Your task to perform on an android device: open chrome privacy settings Image 0: 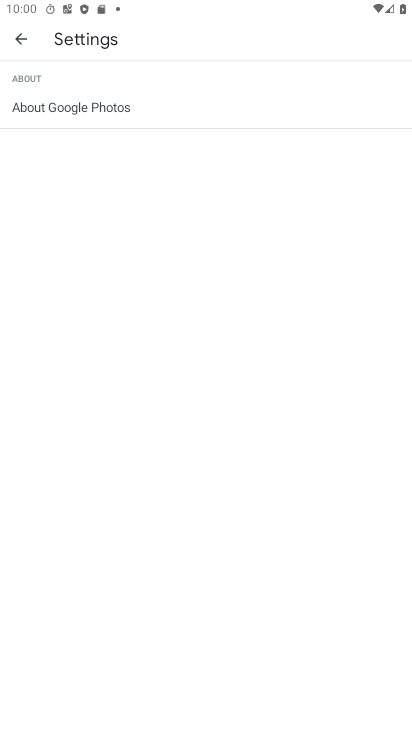
Step 0: drag from (250, 526) to (247, 373)
Your task to perform on an android device: open chrome privacy settings Image 1: 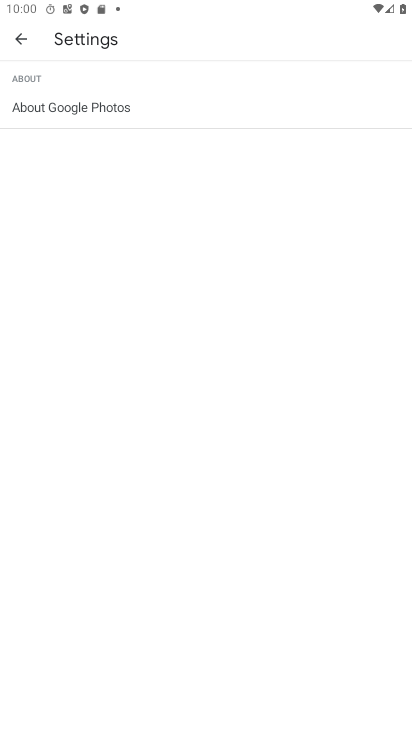
Step 1: click (22, 43)
Your task to perform on an android device: open chrome privacy settings Image 2: 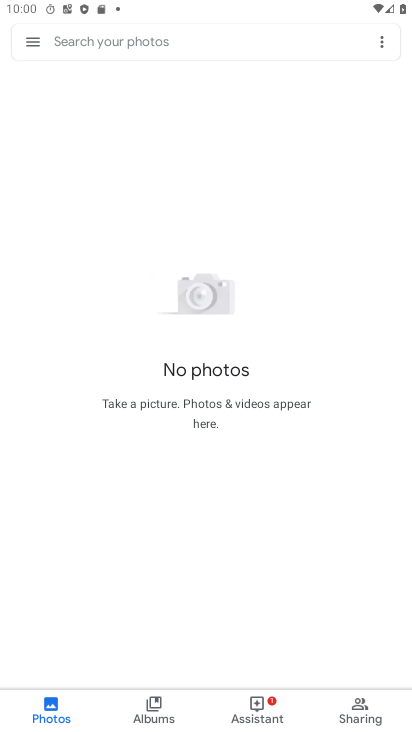
Step 2: click (14, 41)
Your task to perform on an android device: open chrome privacy settings Image 3: 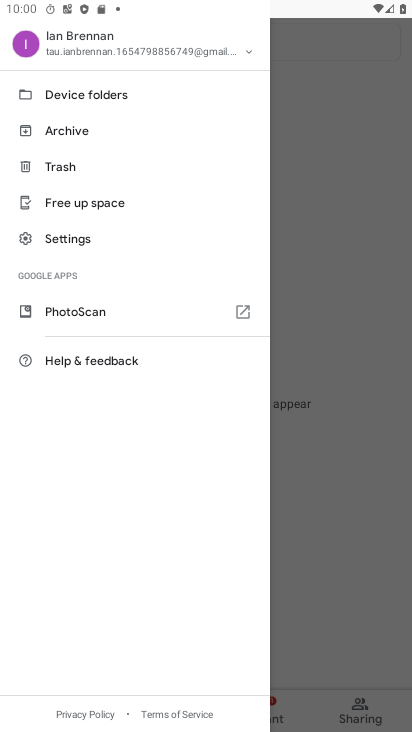
Step 3: click (369, 156)
Your task to perform on an android device: open chrome privacy settings Image 4: 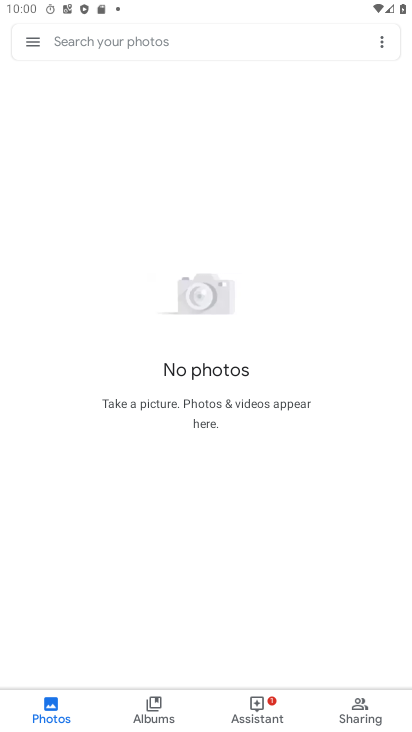
Step 4: press back button
Your task to perform on an android device: open chrome privacy settings Image 5: 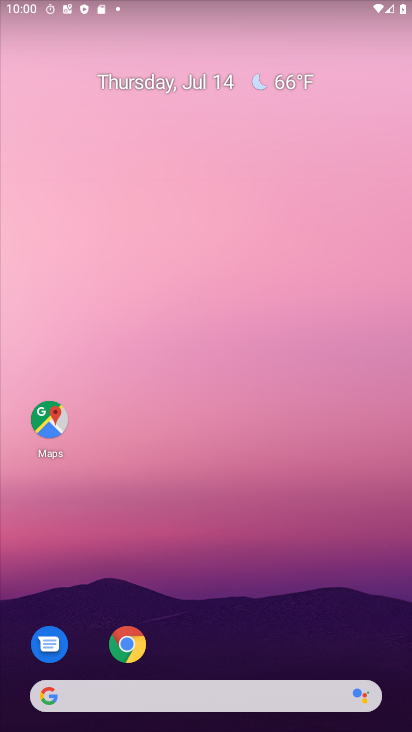
Step 5: drag from (243, 635) to (174, 98)
Your task to perform on an android device: open chrome privacy settings Image 6: 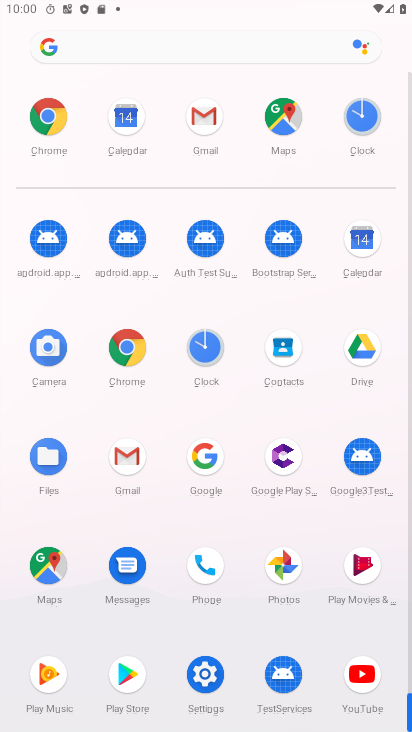
Step 6: click (46, 107)
Your task to perform on an android device: open chrome privacy settings Image 7: 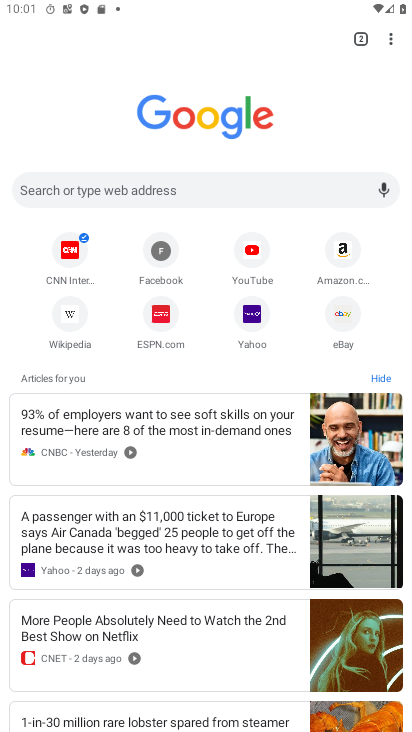
Step 7: drag from (383, 55) to (350, 150)
Your task to perform on an android device: open chrome privacy settings Image 8: 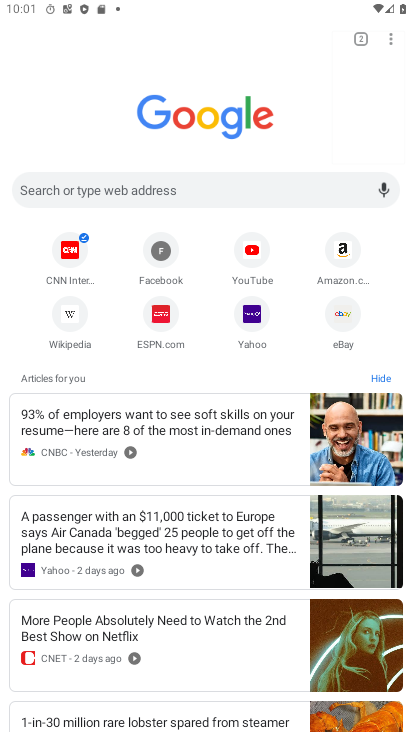
Step 8: click (387, 45)
Your task to perform on an android device: open chrome privacy settings Image 9: 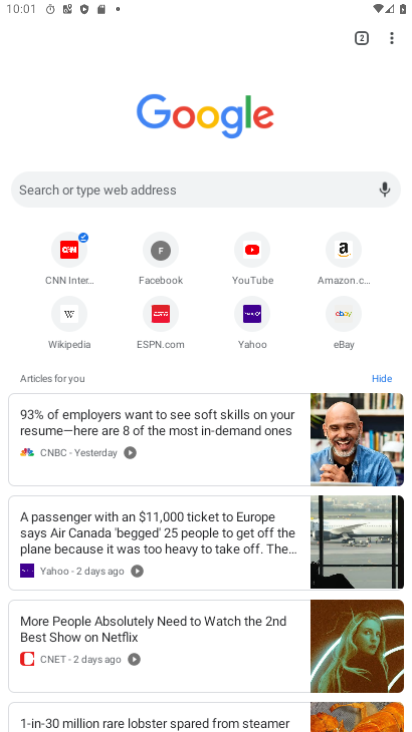
Step 9: click (383, 40)
Your task to perform on an android device: open chrome privacy settings Image 10: 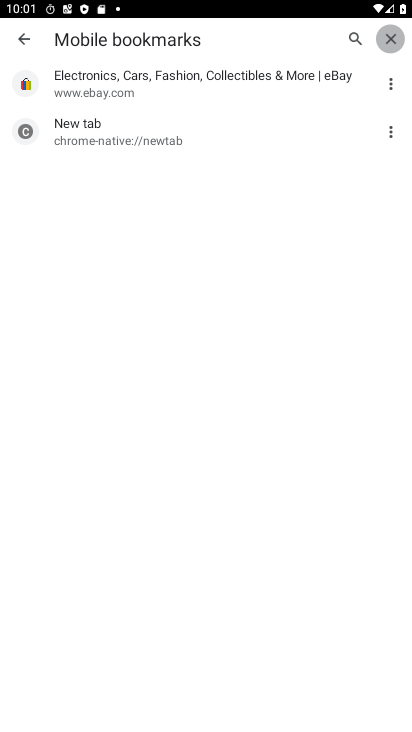
Step 10: drag from (395, 37) to (349, 192)
Your task to perform on an android device: open chrome privacy settings Image 11: 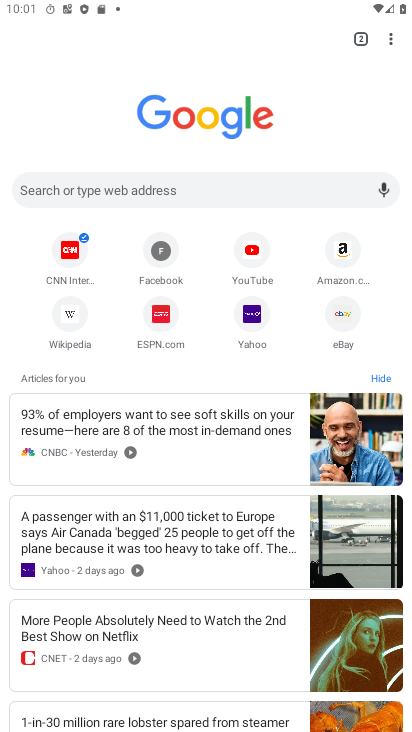
Step 11: click (20, 38)
Your task to perform on an android device: open chrome privacy settings Image 12: 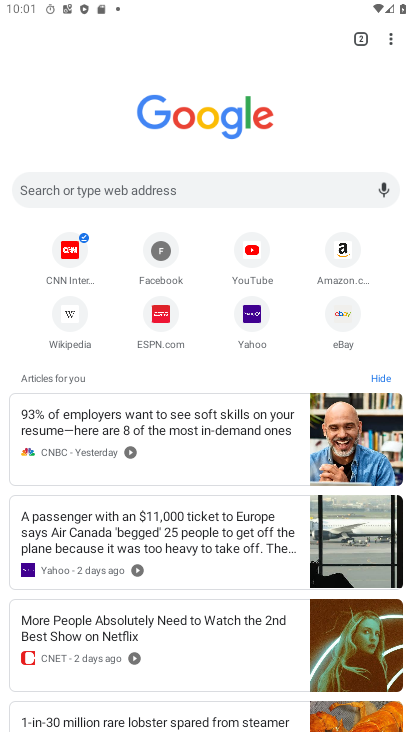
Step 12: drag from (391, 39) to (345, 187)
Your task to perform on an android device: open chrome privacy settings Image 13: 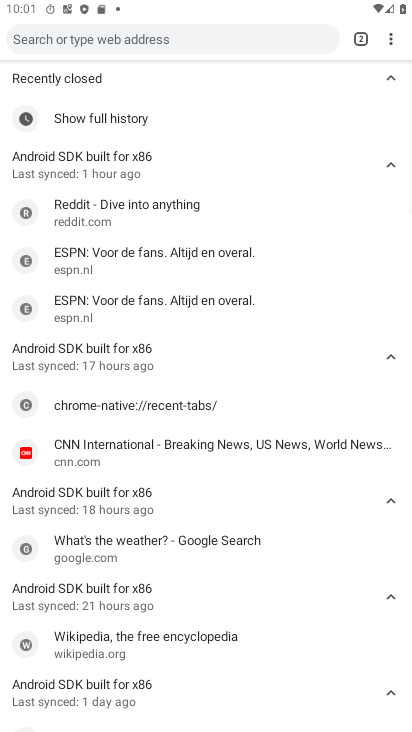
Step 13: click (249, 329)
Your task to perform on an android device: open chrome privacy settings Image 14: 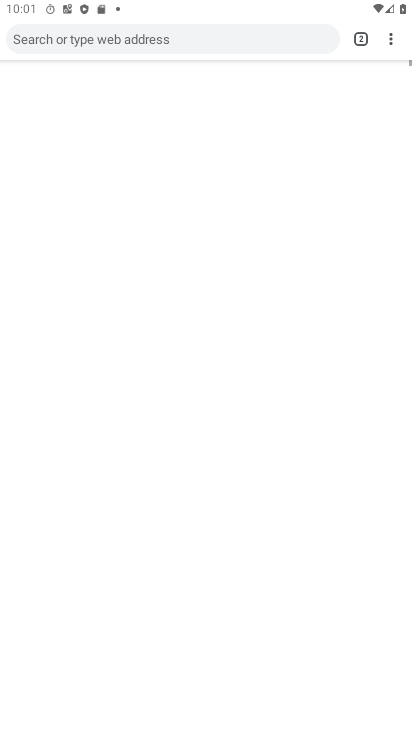
Step 14: drag from (387, 37) to (244, 432)
Your task to perform on an android device: open chrome privacy settings Image 15: 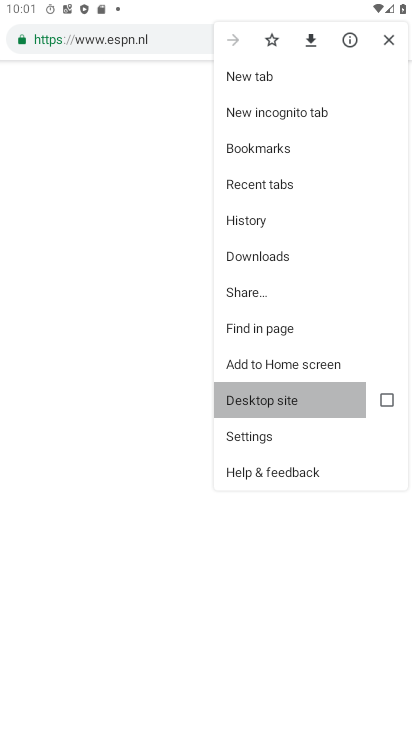
Step 15: click (244, 432)
Your task to perform on an android device: open chrome privacy settings Image 16: 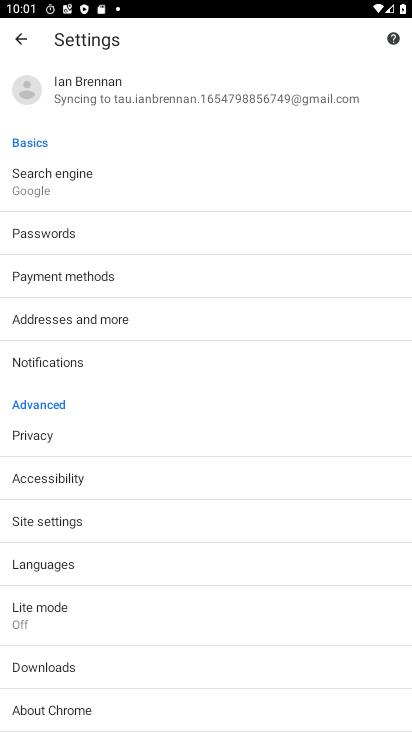
Step 16: click (42, 432)
Your task to perform on an android device: open chrome privacy settings Image 17: 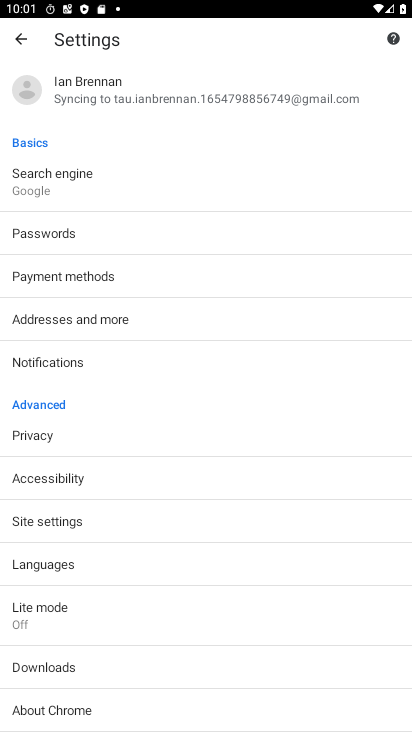
Step 17: click (24, 433)
Your task to perform on an android device: open chrome privacy settings Image 18: 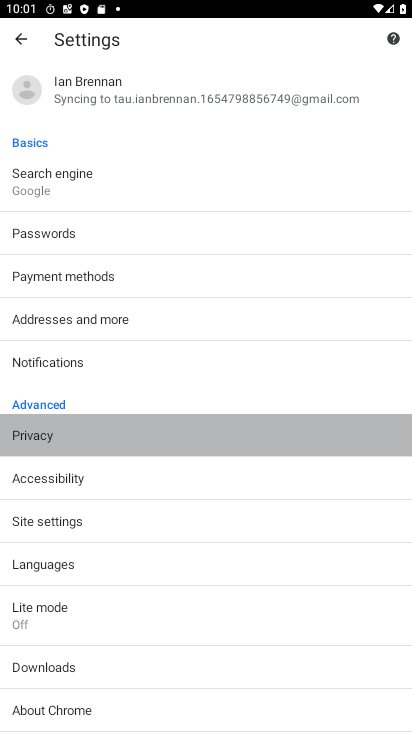
Step 18: click (21, 431)
Your task to perform on an android device: open chrome privacy settings Image 19: 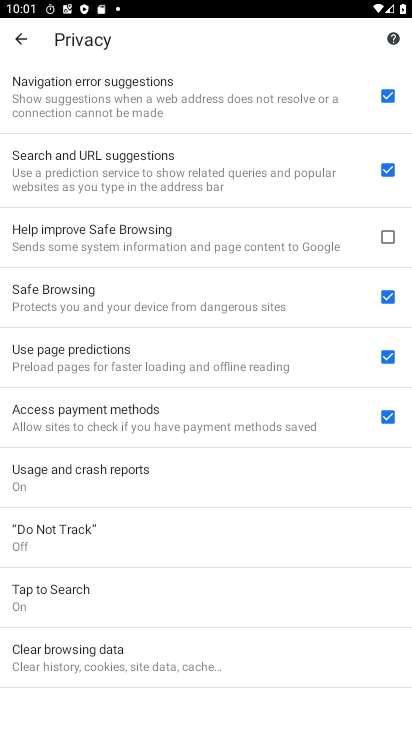
Step 19: task complete